Your task to perform on an android device: check storage Image 0: 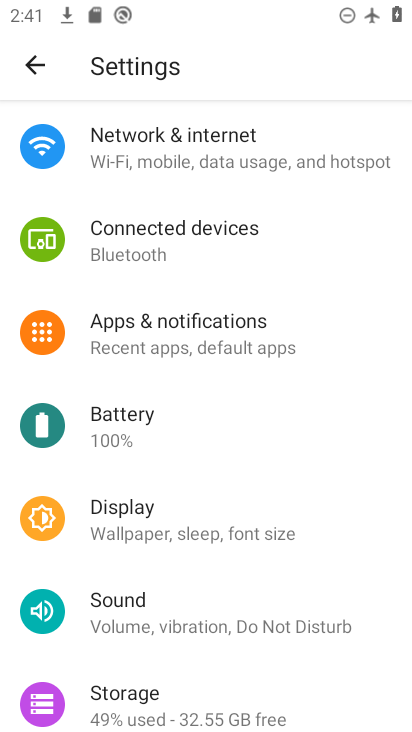
Step 0: click (137, 689)
Your task to perform on an android device: check storage Image 1: 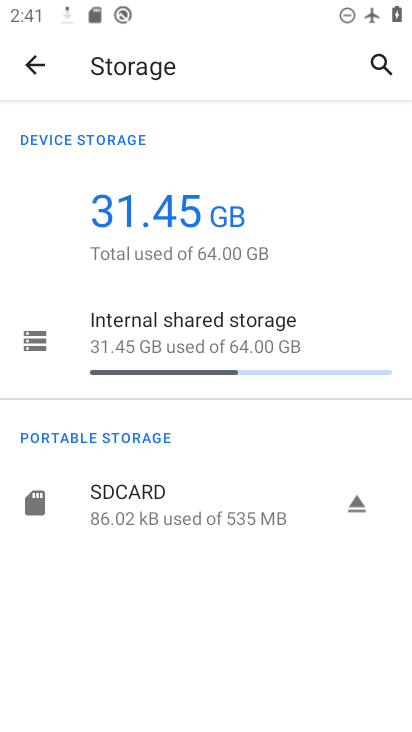
Step 1: task complete